Your task to perform on an android device: Is it going to rain tomorrow? Image 0: 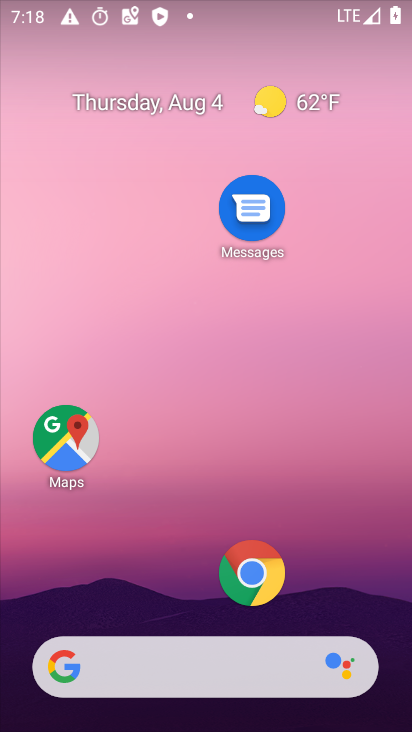
Step 0: click (57, 670)
Your task to perform on an android device: Is it going to rain tomorrow? Image 1: 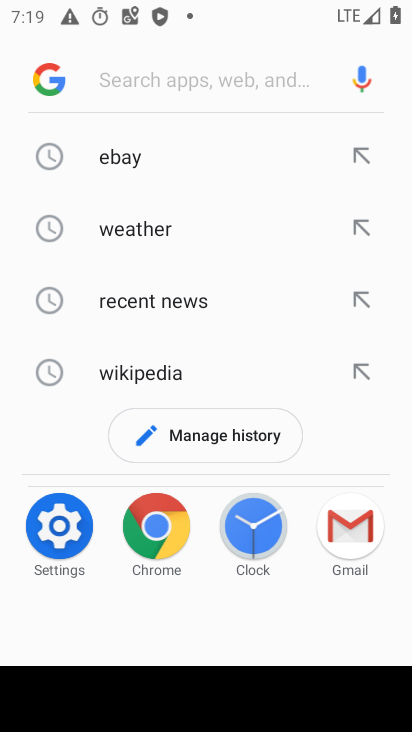
Step 1: type "rain tomorrow?"
Your task to perform on an android device: Is it going to rain tomorrow? Image 2: 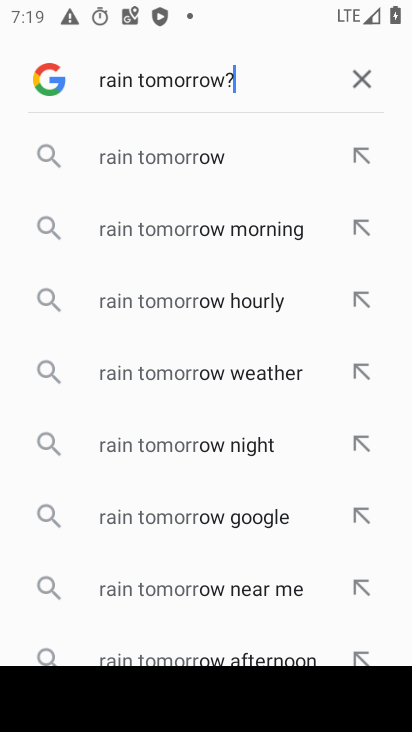
Step 2: press enter
Your task to perform on an android device: Is it going to rain tomorrow? Image 3: 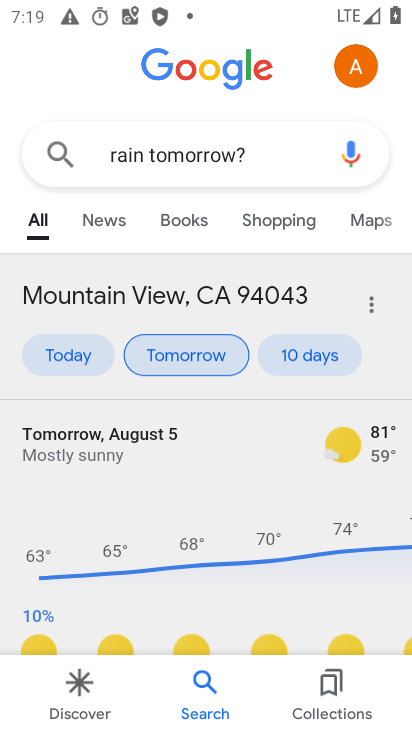
Step 3: task complete